Your task to perform on an android device: Show me recent news Image 0: 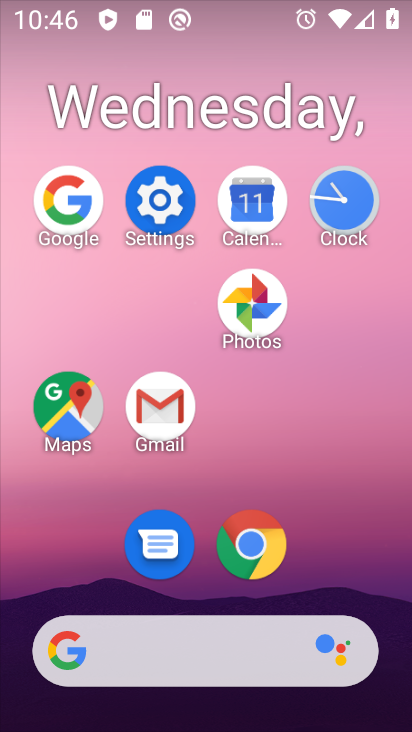
Step 0: drag from (242, 303) to (97, 293)
Your task to perform on an android device: Show me recent news Image 1: 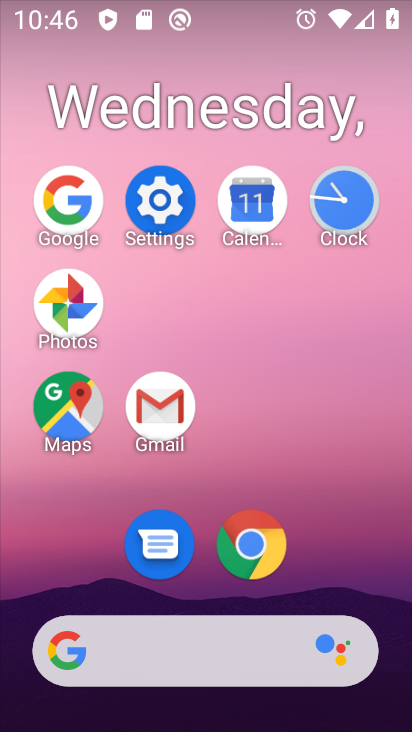
Step 1: click (264, 538)
Your task to perform on an android device: Show me recent news Image 2: 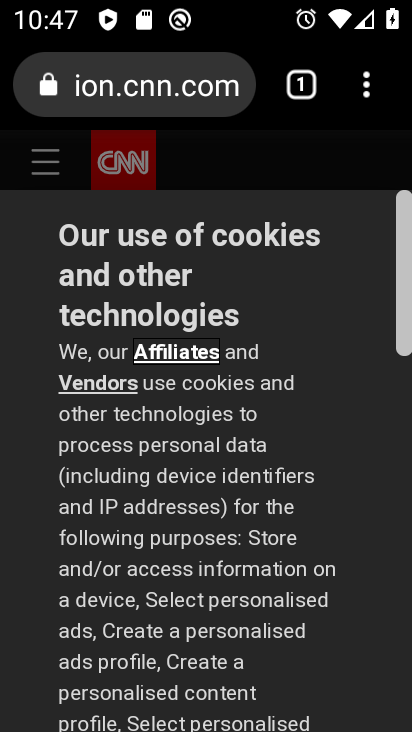
Step 2: click (313, 92)
Your task to perform on an android device: Show me recent news Image 3: 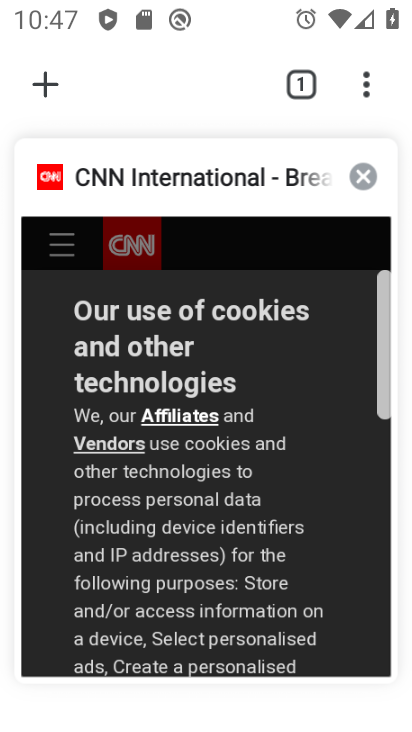
Step 3: click (40, 93)
Your task to perform on an android device: Show me recent news Image 4: 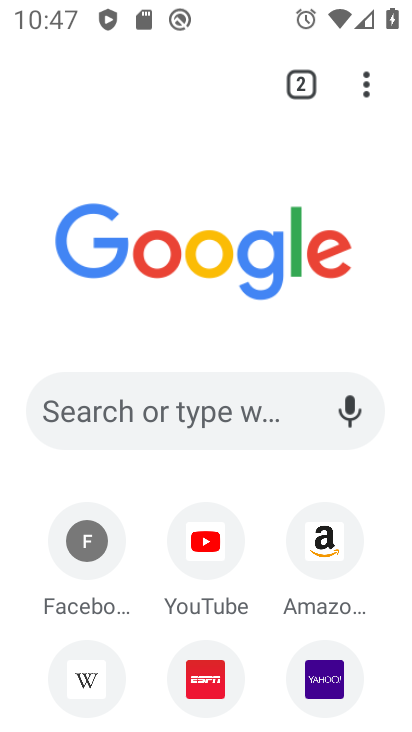
Step 4: click (171, 407)
Your task to perform on an android device: Show me recent news Image 5: 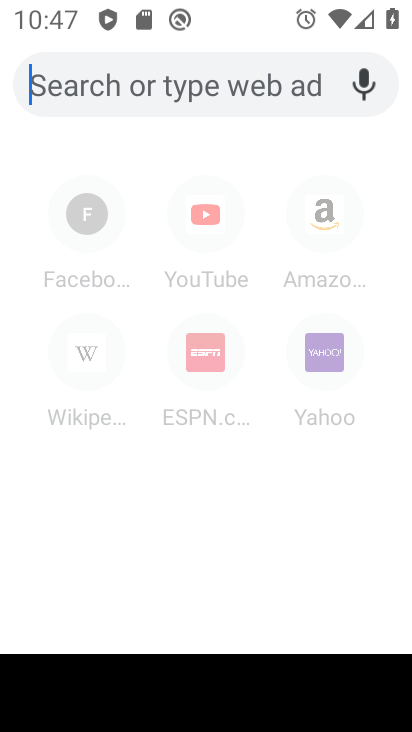
Step 5: type "recent news"
Your task to perform on an android device: Show me recent news Image 6: 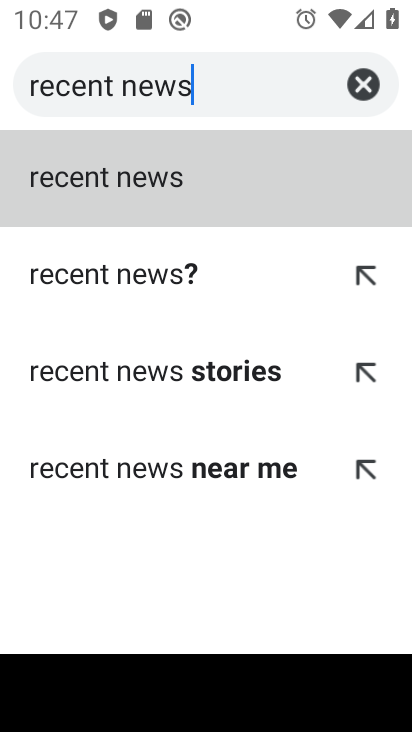
Step 6: click (225, 194)
Your task to perform on an android device: Show me recent news Image 7: 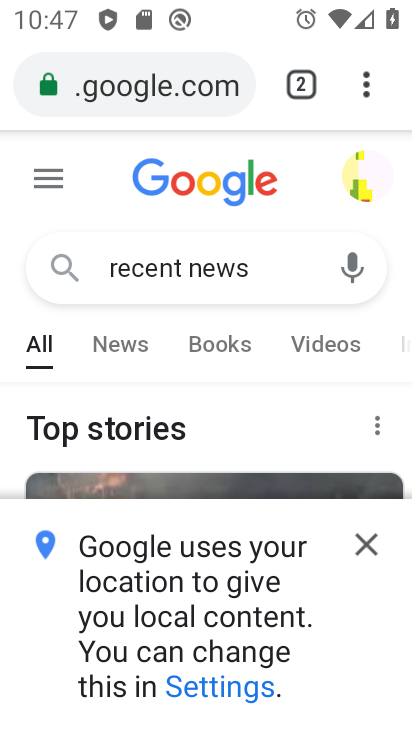
Step 7: task complete